Your task to perform on an android device: When is my next meeting? Image 0: 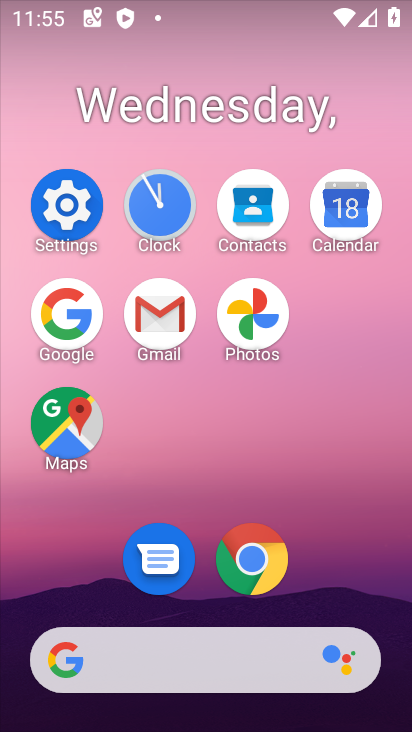
Step 0: click (349, 220)
Your task to perform on an android device: When is my next meeting? Image 1: 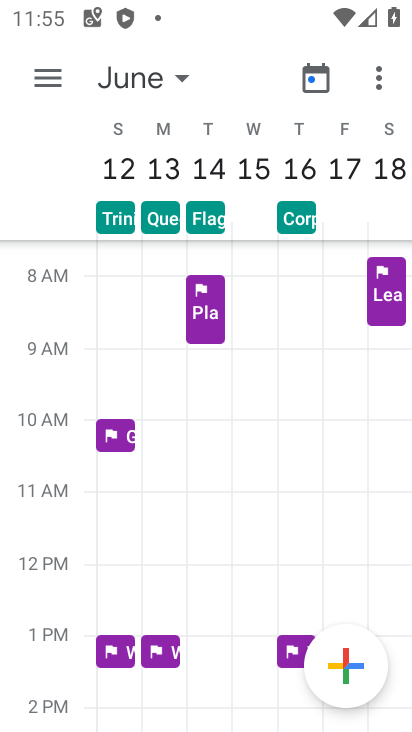
Step 1: click (132, 91)
Your task to perform on an android device: When is my next meeting? Image 2: 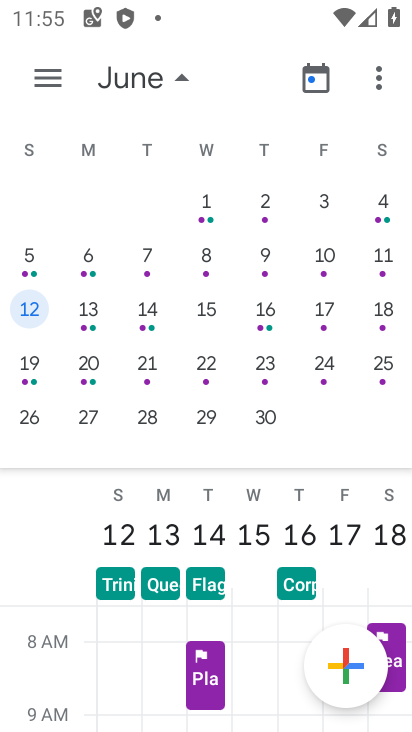
Step 2: drag from (176, 289) to (395, 332)
Your task to perform on an android device: When is my next meeting? Image 3: 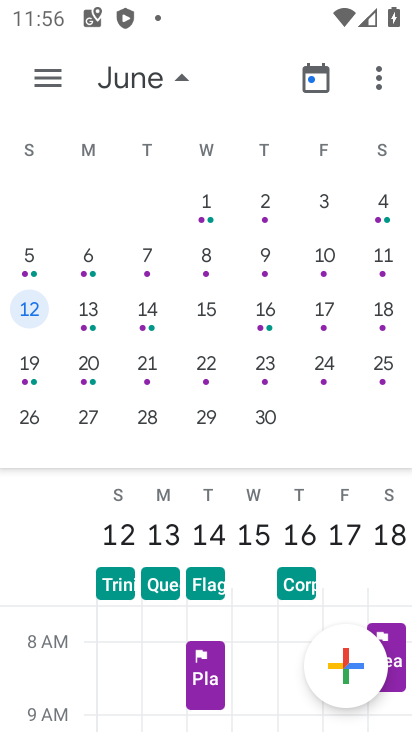
Step 3: drag from (74, 353) to (408, 37)
Your task to perform on an android device: When is my next meeting? Image 4: 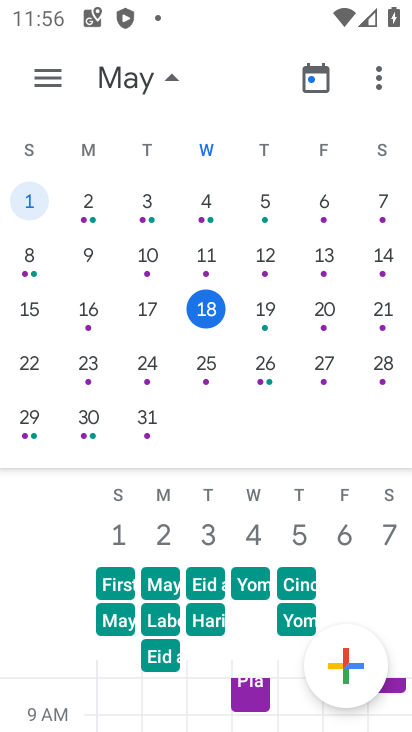
Step 4: click (324, 303)
Your task to perform on an android device: When is my next meeting? Image 5: 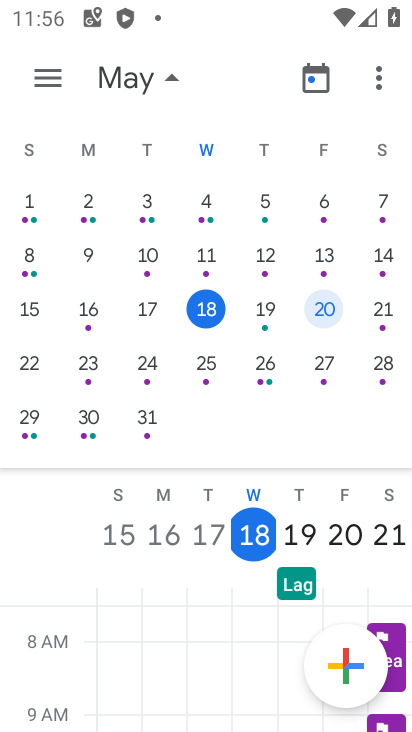
Step 5: click (346, 527)
Your task to perform on an android device: When is my next meeting? Image 6: 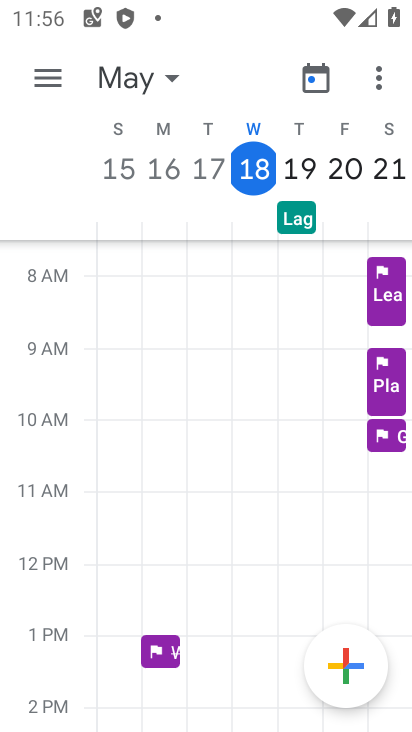
Step 6: task complete